Your task to perform on an android device: find snoozed emails in the gmail app Image 0: 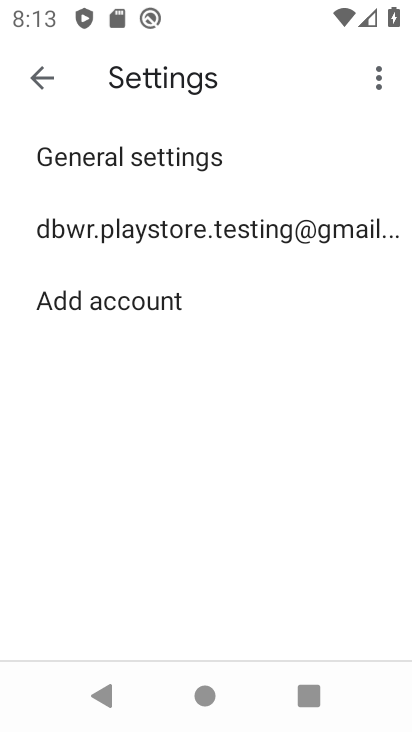
Step 0: press back button
Your task to perform on an android device: find snoozed emails in the gmail app Image 1: 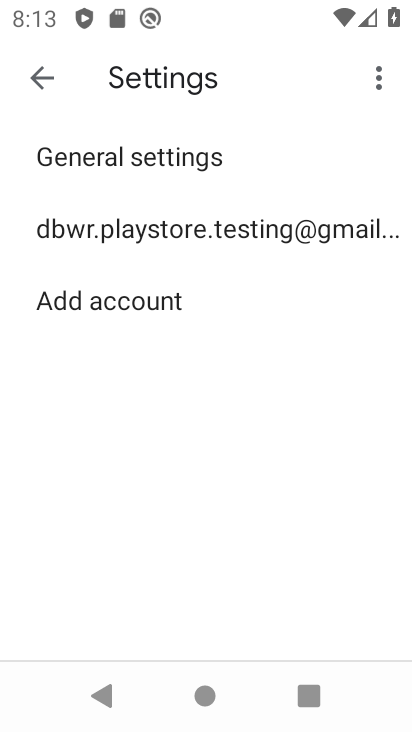
Step 1: click (45, 75)
Your task to perform on an android device: find snoozed emails in the gmail app Image 2: 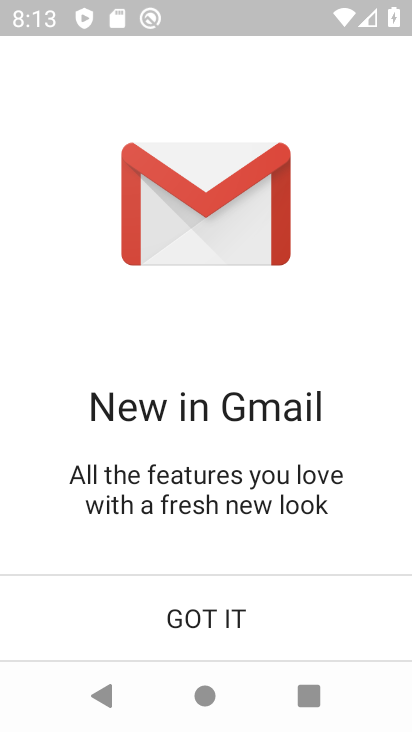
Step 2: press back button
Your task to perform on an android device: find snoozed emails in the gmail app Image 3: 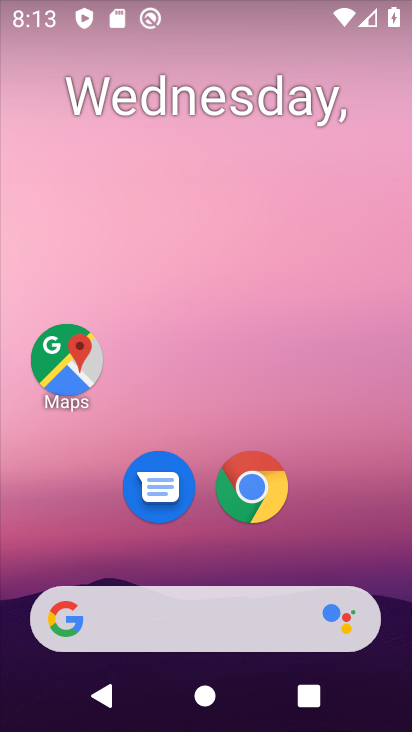
Step 3: drag from (244, 706) to (137, 124)
Your task to perform on an android device: find snoozed emails in the gmail app Image 4: 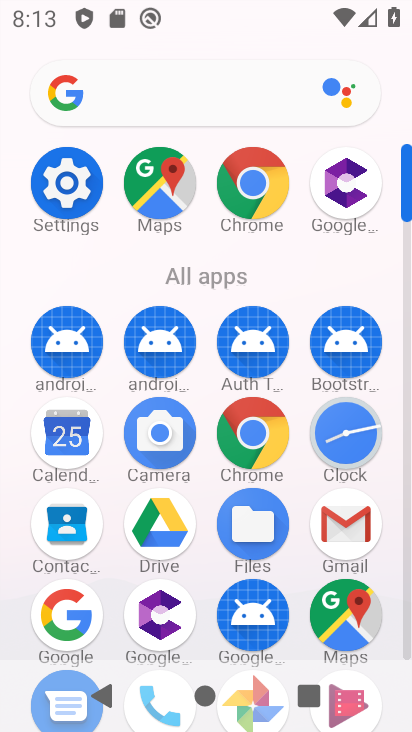
Step 4: click (338, 523)
Your task to perform on an android device: find snoozed emails in the gmail app Image 5: 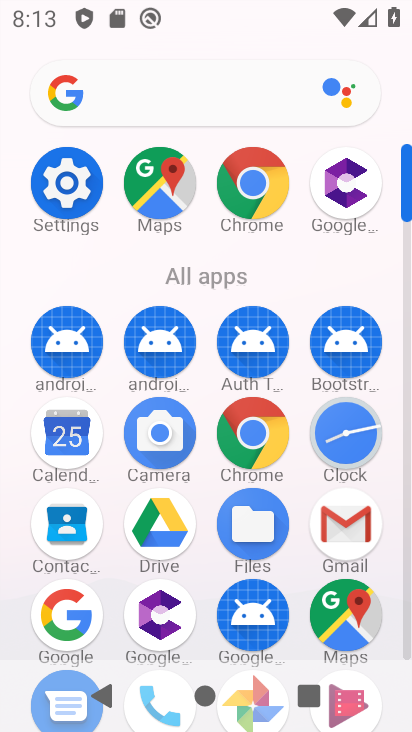
Step 5: click (344, 506)
Your task to perform on an android device: find snoozed emails in the gmail app Image 6: 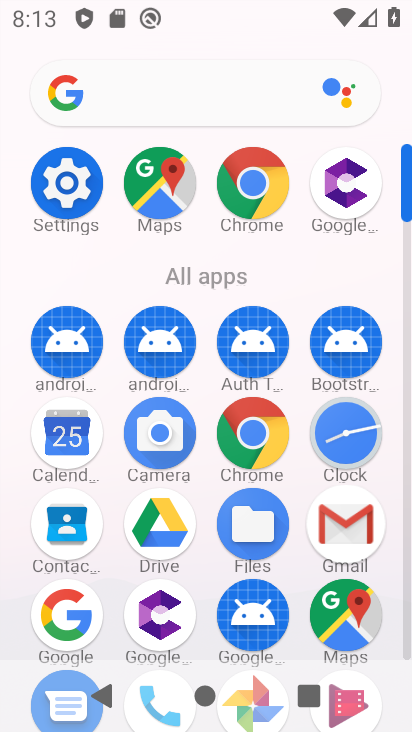
Step 6: click (344, 506)
Your task to perform on an android device: find snoozed emails in the gmail app Image 7: 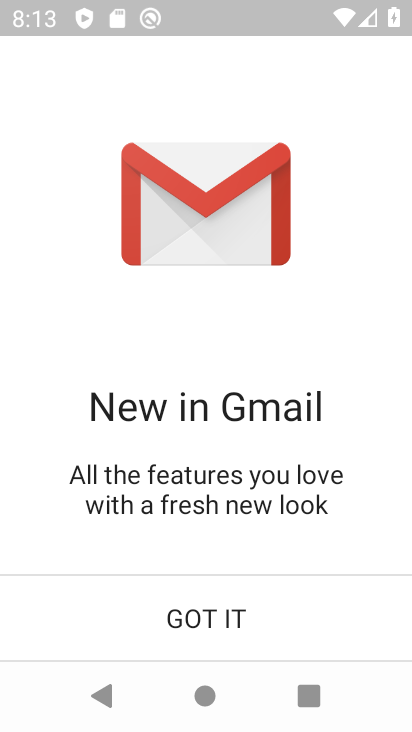
Step 7: click (214, 608)
Your task to perform on an android device: find snoozed emails in the gmail app Image 8: 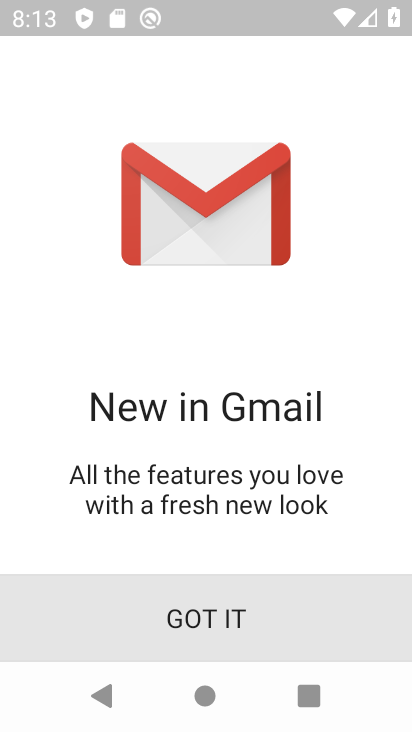
Step 8: click (214, 611)
Your task to perform on an android device: find snoozed emails in the gmail app Image 9: 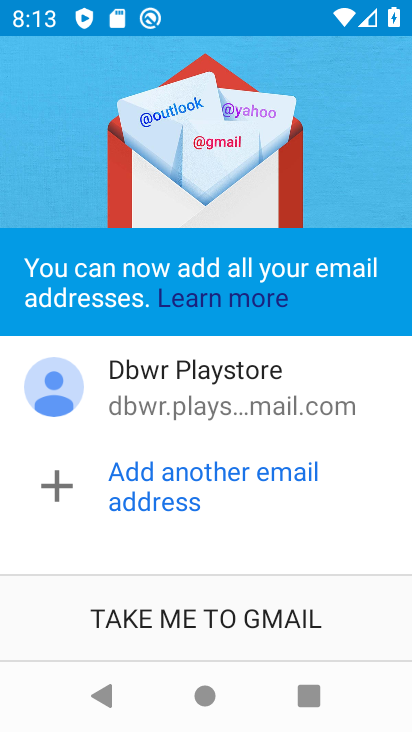
Step 9: click (229, 610)
Your task to perform on an android device: find snoozed emails in the gmail app Image 10: 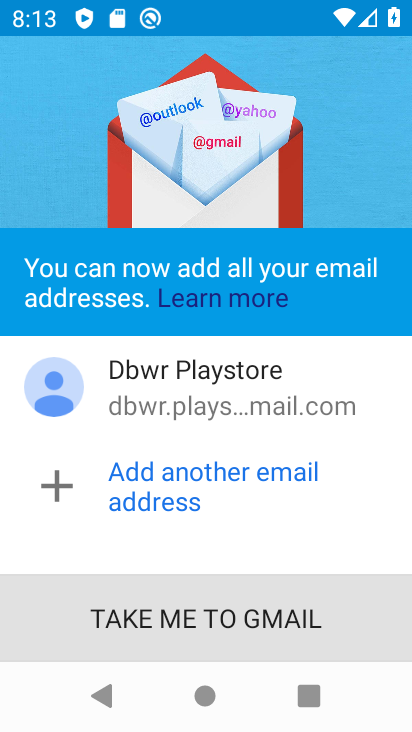
Step 10: click (229, 610)
Your task to perform on an android device: find snoozed emails in the gmail app Image 11: 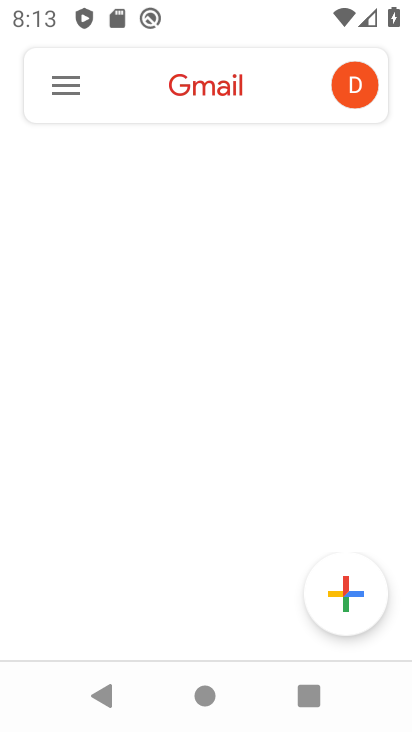
Step 11: click (245, 586)
Your task to perform on an android device: find snoozed emails in the gmail app Image 12: 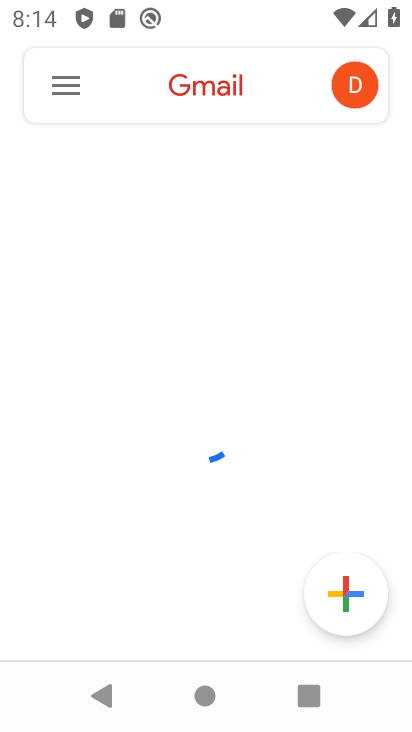
Step 12: drag from (61, 76) to (73, 488)
Your task to perform on an android device: find snoozed emails in the gmail app Image 13: 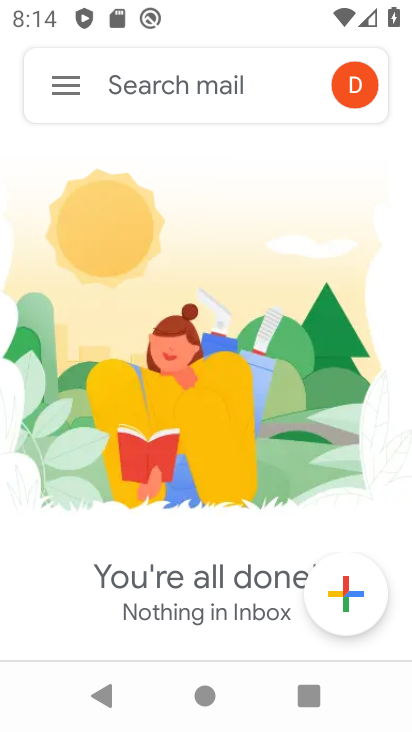
Step 13: drag from (75, 90) to (120, 576)
Your task to perform on an android device: find snoozed emails in the gmail app Image 14: 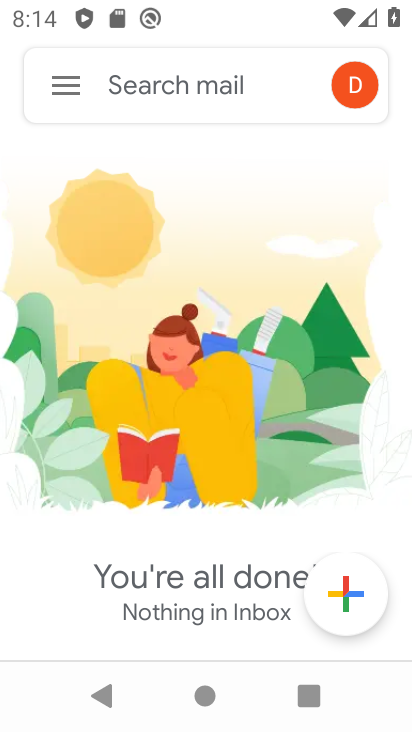
Step 14: click (67, 69)
Your task to perform on an android device: find snoozed emails in the gmail app Image 15: 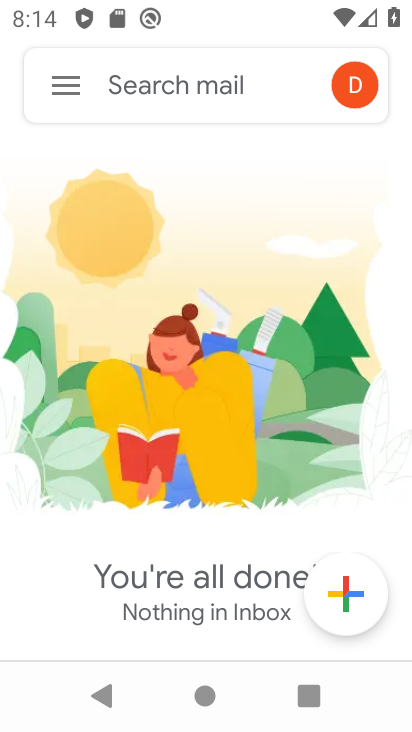
Step 15: drag from (70, 97) to (126, 416)
Your task to perform on an android device: find snoozed emails in the gmail app Image 16: 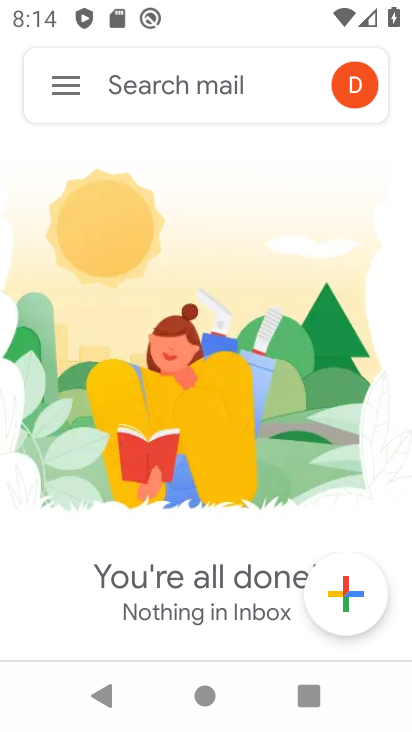
Step 16: click (76, 86)
Your task to perform on an android device: find snoozed emails in the gmail app Image 17: 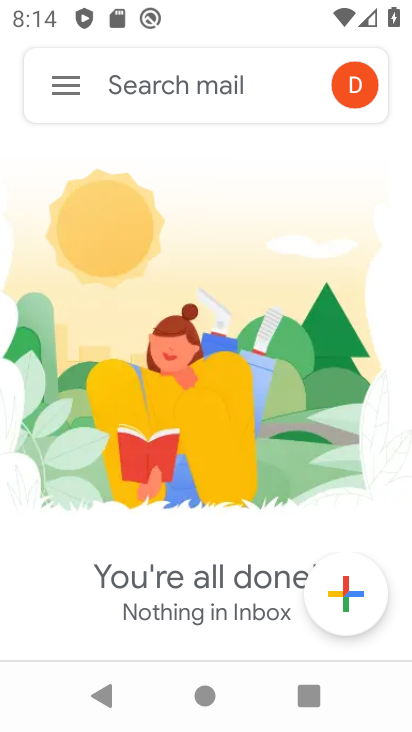
Step 17: click (76, 86)
Your task to perform on an android device: find snoozed emails in the gmail app Image 18: 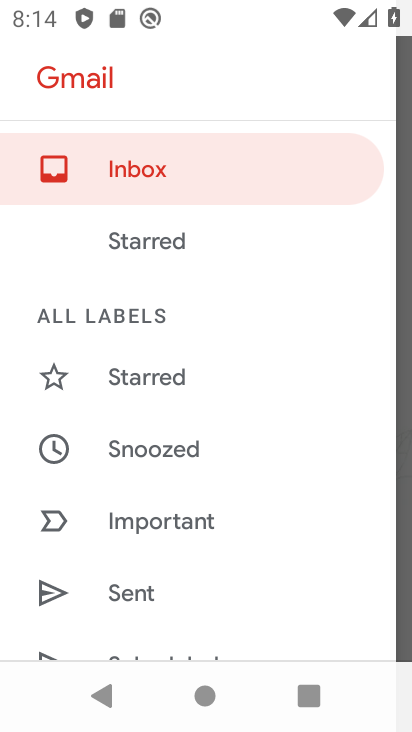
Step 18: click (170, 451)
Your task to perform on an android device: find snoozed emails in the gmail app Image 19: 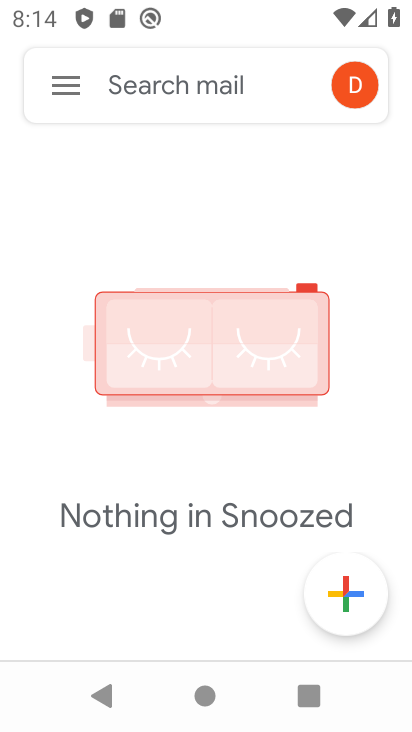
Step 19: task complete